Your task to perform on an android device: Go to wifi settings Image 0: 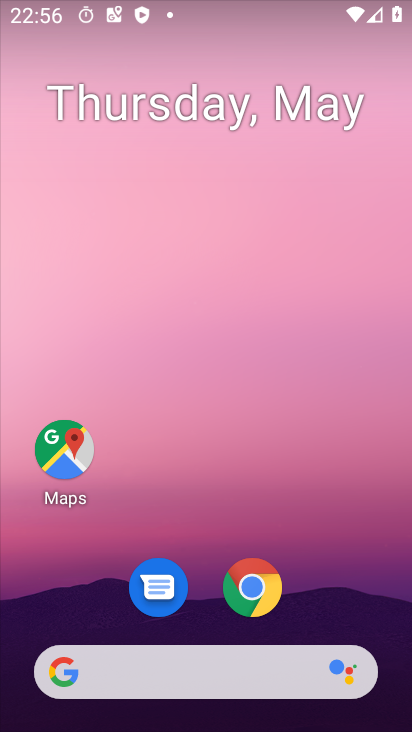
Step 0: drag from (348, 592) to (367, 7)
Your task to perform on an android device: Go to wifi settings Image 1: 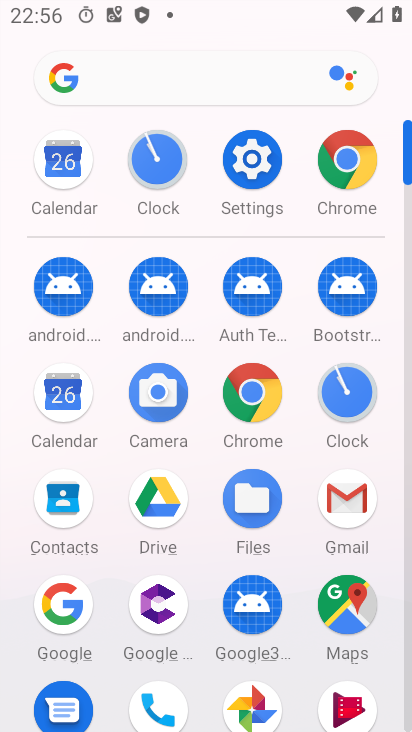
Step 1: click (250, 168)
Your task to perform on an android device: Go to wifi settings Image 2: 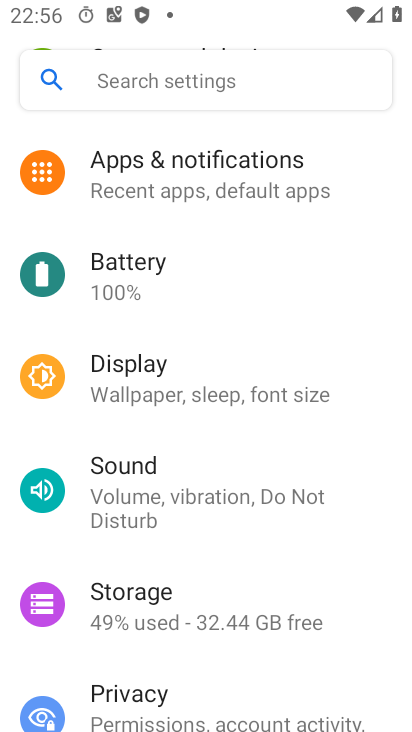
Step 2: drag from (242, 165) to (272, 577)
Your task to perform on an android device: Go to wifi settings Image 3: 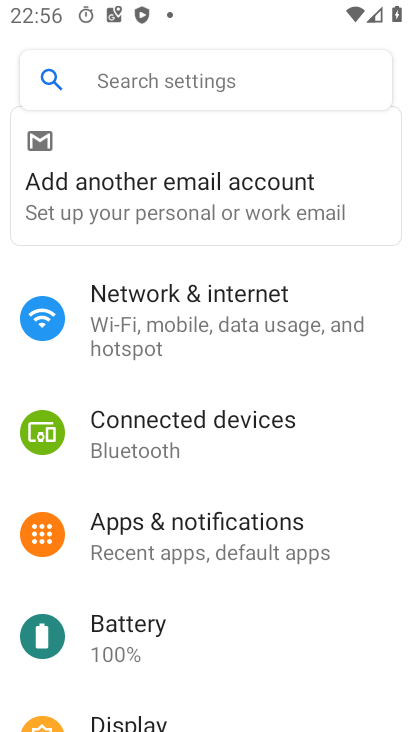
Step 3: click (139, 336)
Your task to perform on an android device: Go to wifi settings Image 4: 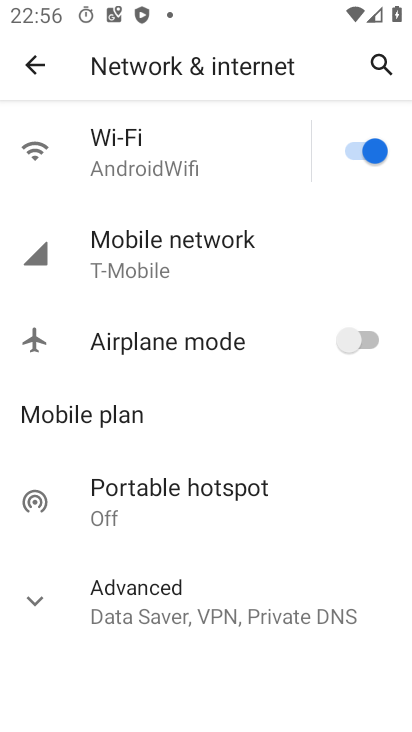
Step 4: click (97, 154)
Your task to perform on an android device: Go to wifi settings Image 5: 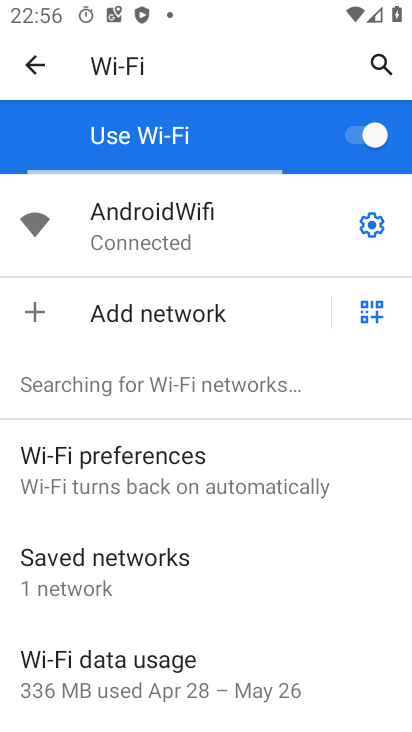
Step 5: task complete